Your task to perform on an android device: Go to battery settings Image 0: 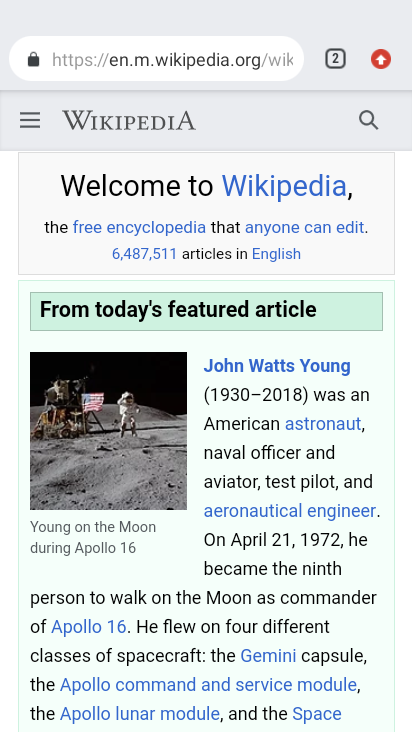
Step 0: press home button
Your task to perform on an android device: Go to battery settings Image 1: 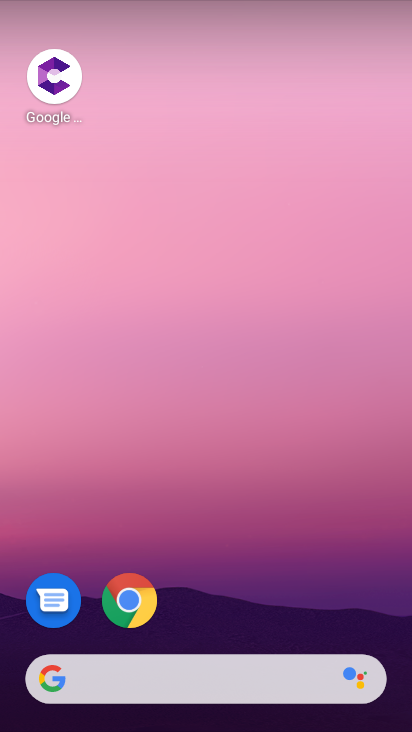
Step 1: drag from (291, 526) to (286, 103)
Your task to perform on an android device: Go to battery settings Image 2: 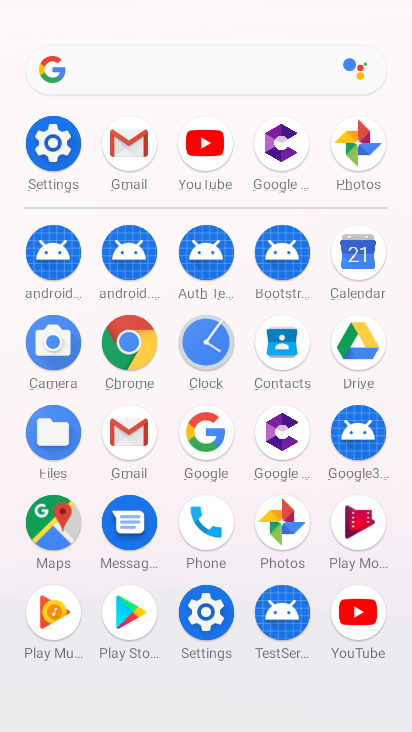
Step 2: click (208, 604)
Your task to perform on an android device: Go to battery settings Image 3: 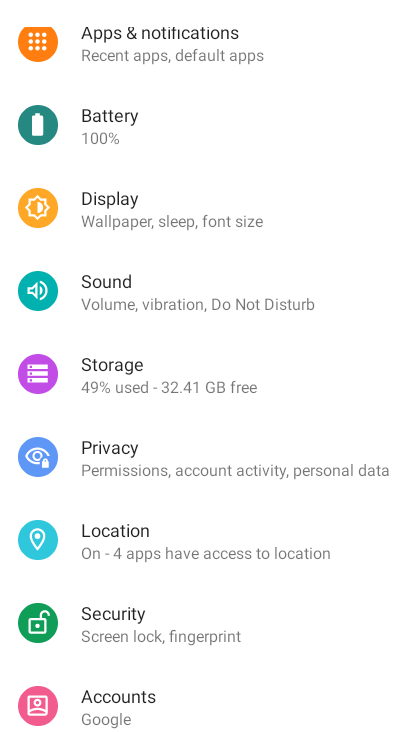
Step 3: click (188, 134)
Your task to perform on an android device: Go to battery settings Image 4: 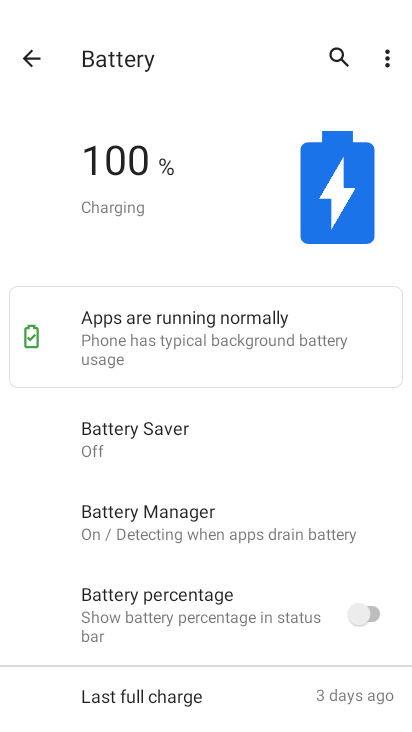
Step 4: task complete